Your task to perform on an android device: Open Chrome and go to the settings page Image 0: 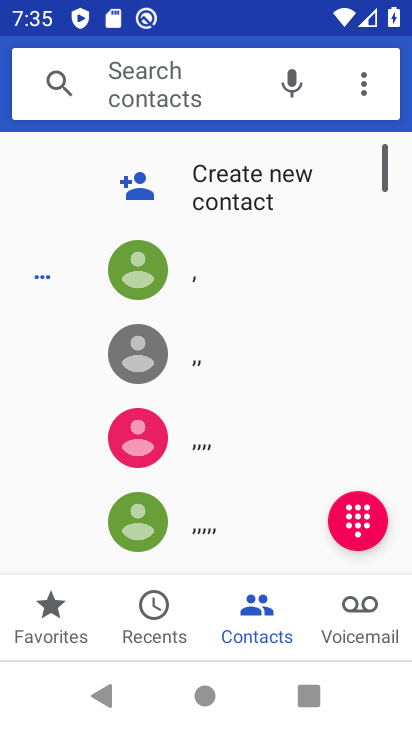
Step 0: press home button
Your task to perform on an android device: Open Chrome and go to the settings page Image 1: 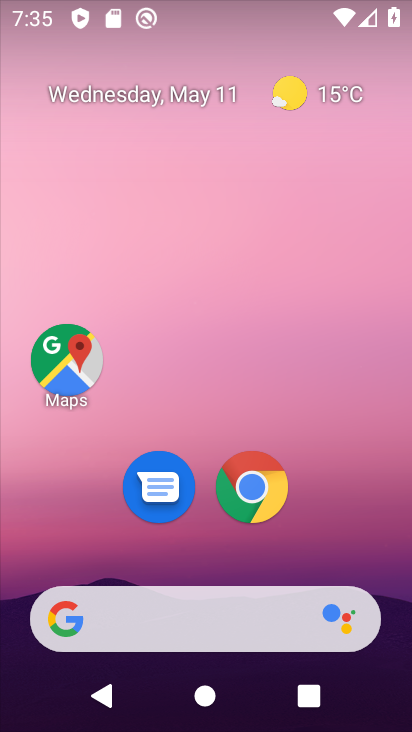
Step 1: drag from (227, 667) to (201, 163)
Your task to perform on an android device: Open Chrome and go to the settings page Image 2: 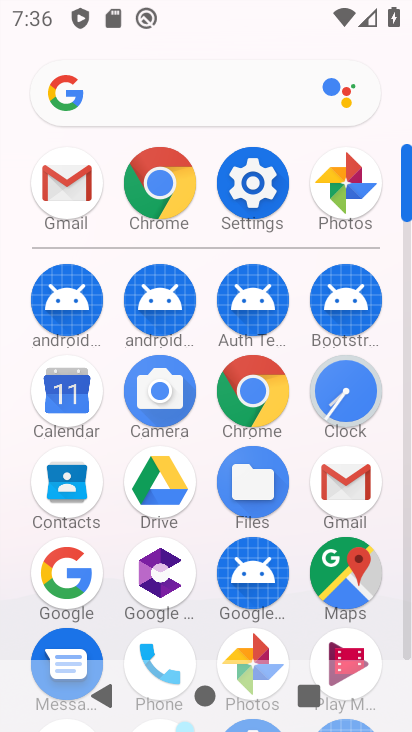
Step 2: click (154, 199)
Your task to perform on an android device: Open Chrome and go to the settings page Image 3: 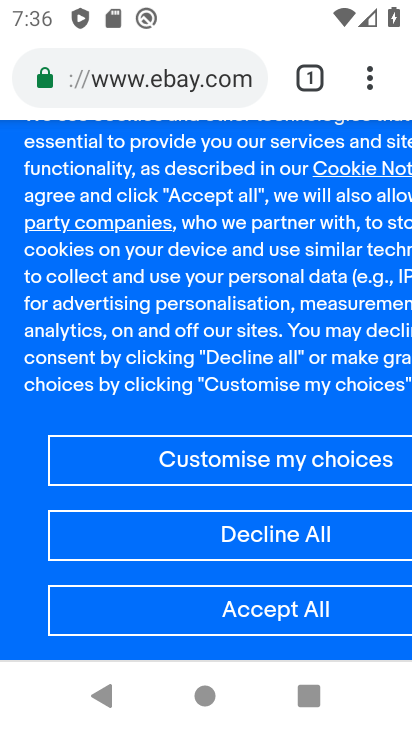
Step 3: click (365, 99)
Your task to perform on an android device: Open Chrome and go to the settings page Image 4: 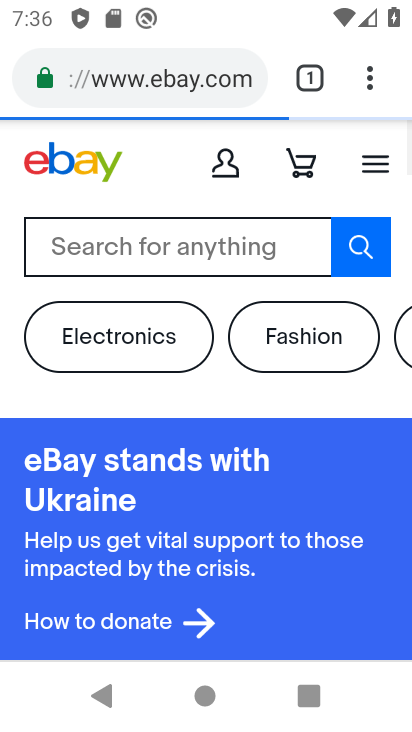
Step 4: click (368, 89)
Your task to perform on an android device: Open Chrome and go to the settings page Image 5: 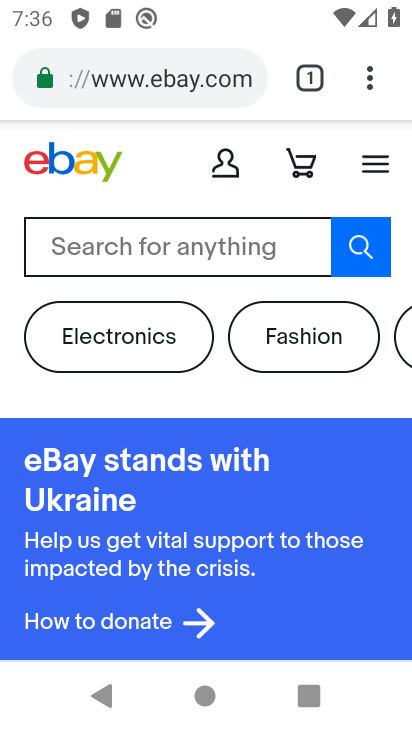
Step 5: click (365, 91)
Your task to perform on an android device: Open Chrome and go to the settings page Image 6: 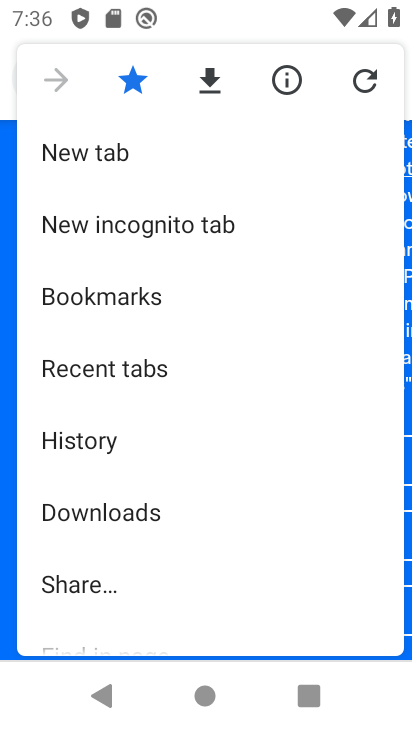
Step 6: drag from (73, 593) to (68, 368)
Your task to perform on an android device: Open Chrome and go to the settings page Image 7: 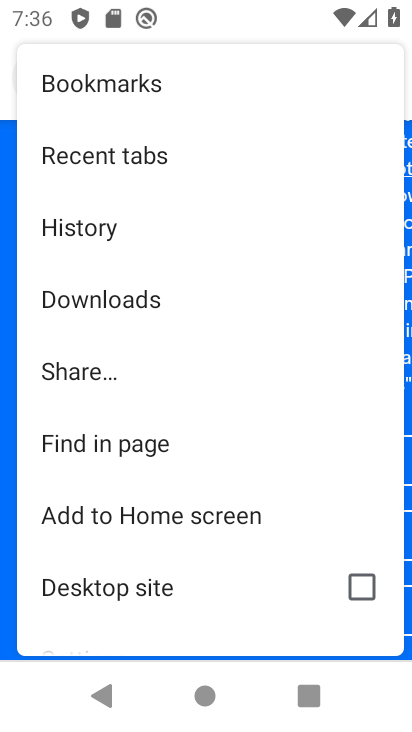
Step 7: drag from (134, 579) to (161, 489)
Your task to perform on an android device: Open Chrome and go to the settings page Image 8: 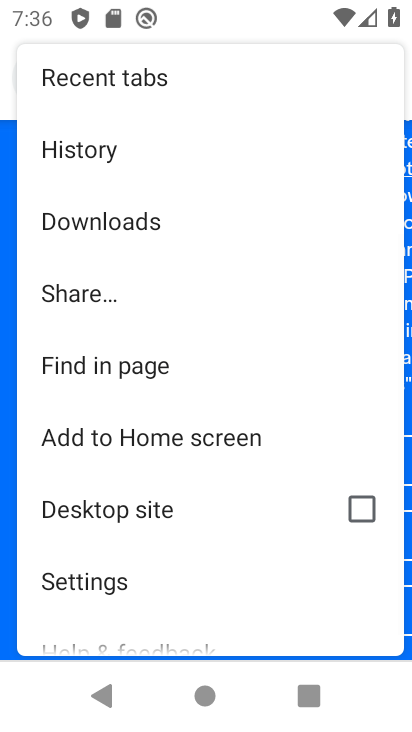
Step 8: click (108, 575)
Your task to perform on an android device: Open Chrome and go to the settings page Image 9: 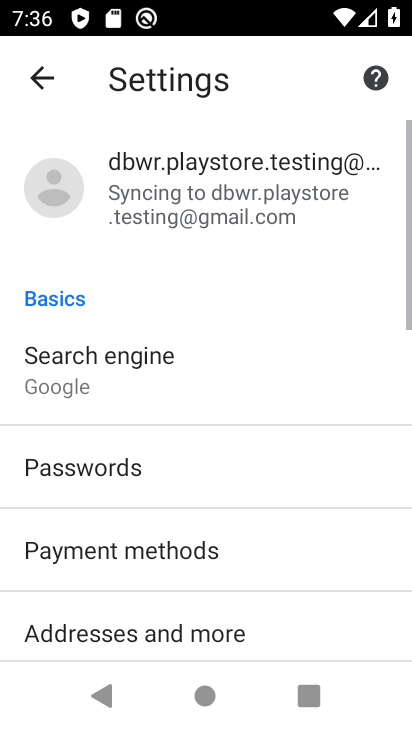
Step 9: task complete